Your task to perform on an android device: add a label to a message in the gmail app Image 0: 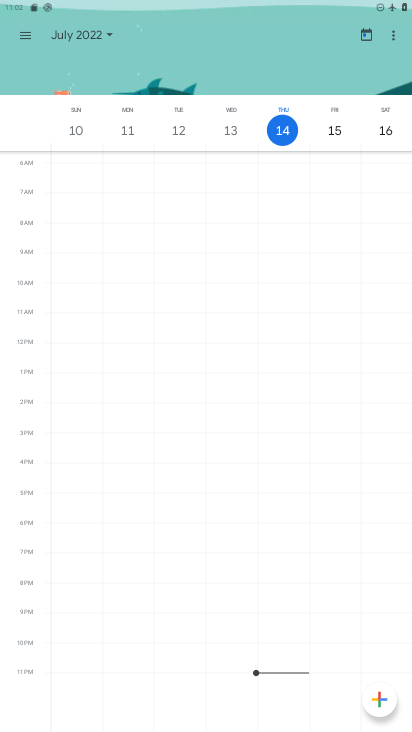
Step 0: press home button
Your task to perform on an android device: add a label to a message in the gmail app Image 1: 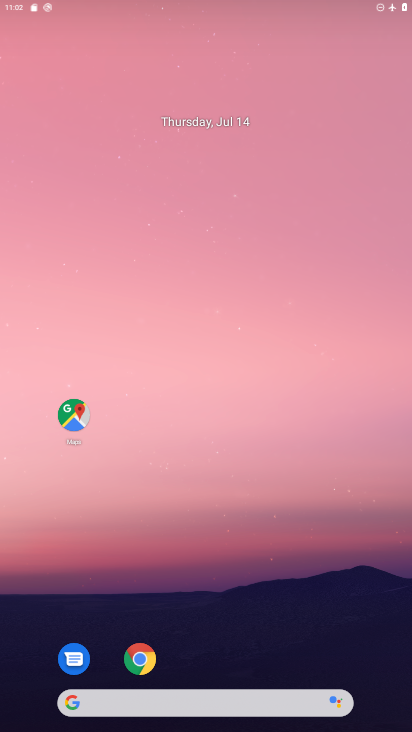
Step 1: drag from (324, 612) to (291, 206)
Your task to perform on an android device: add a label to a message in the gmail app Image 2: 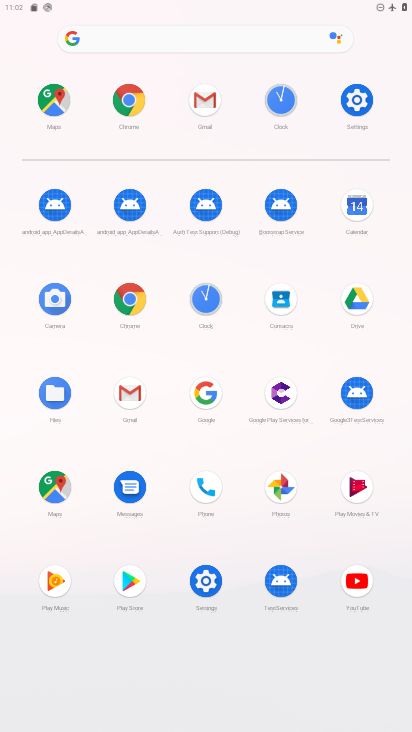
Step 2: click (216, 99)
Your task to perform on an android device: add a label to a message in the gmail app Image 3: 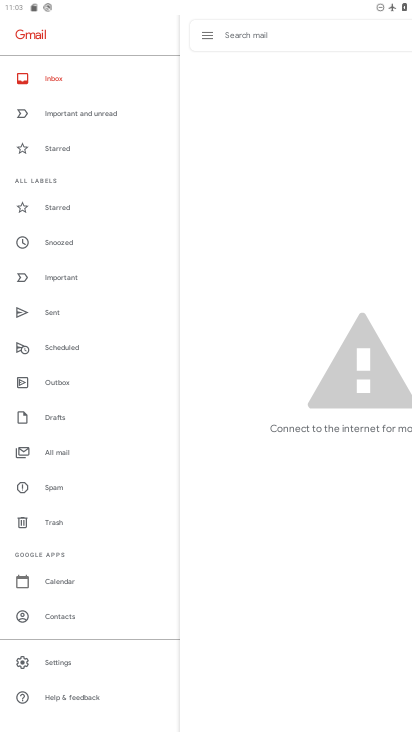
Step 3: click (59, 455)
Your task to perform on an android device: add a label to a message in the gmail app Image 4: 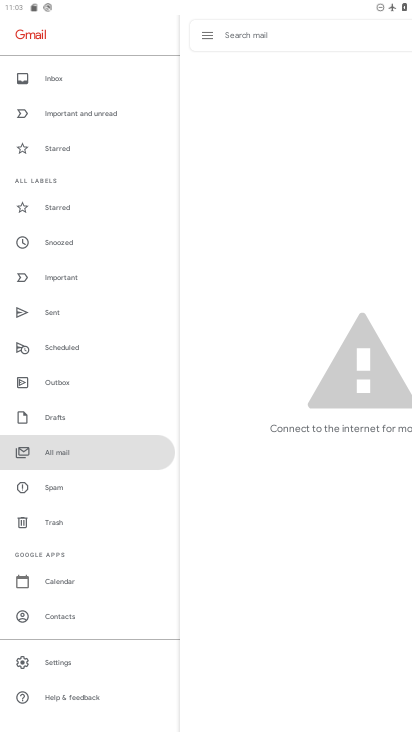
Step 4: task complete